Your task to perform on an android device: remove spam from my inbox in the gmail app Image 0: 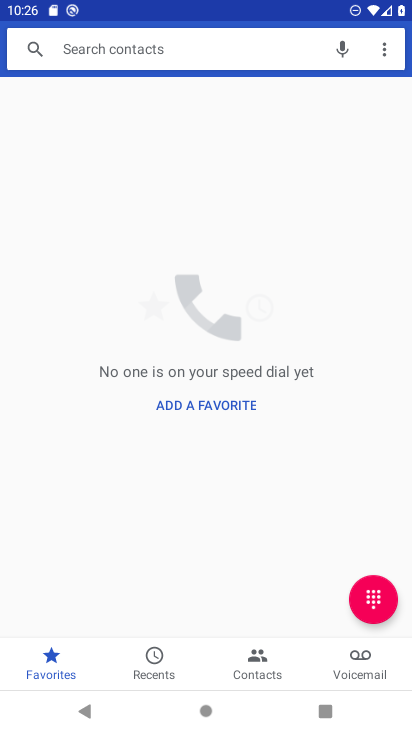
Step 0: press home button
Your task to perform on an android device: remove spam from my inbox in the gmail app Image 1: 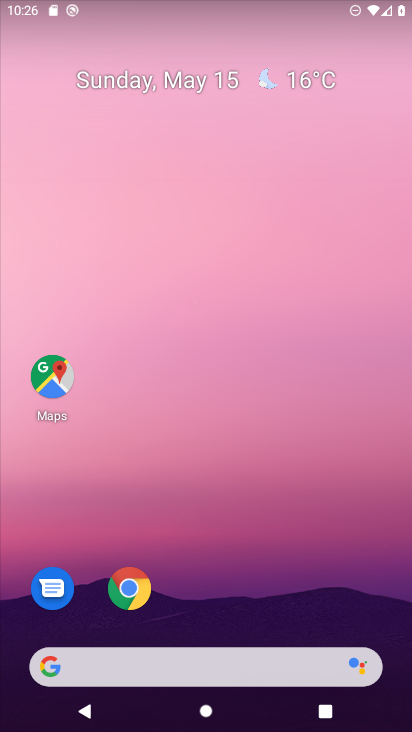
Step 1: drag from (173, 534) to (246, 12)
Your task to perform on an android device: remove spam from my inbox in the gmail app Image 2: 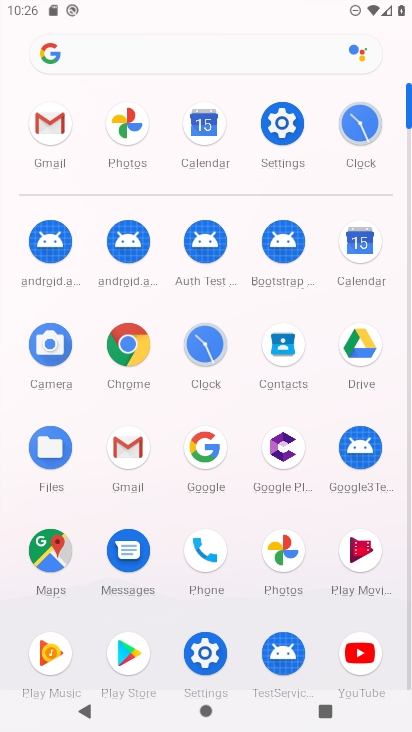
Step 2: click (126, 451)
Your task to perform on an android device: remove spam from my inbox in the gmail app Image 3: 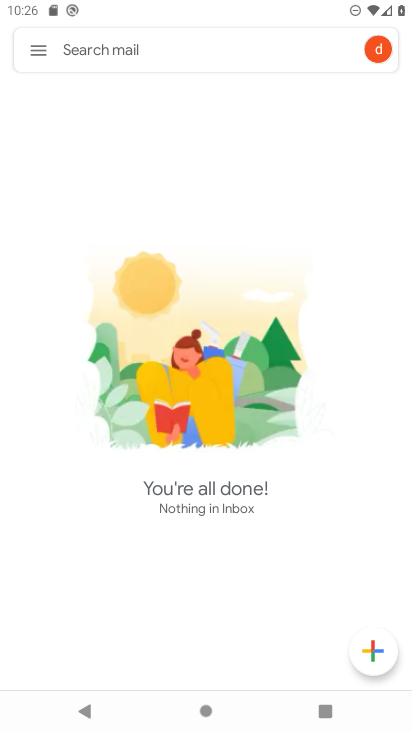
Step 3: click (44, 52)
Your task to perform on an android device: remove spam from my inbox in the gmail app Image 4: 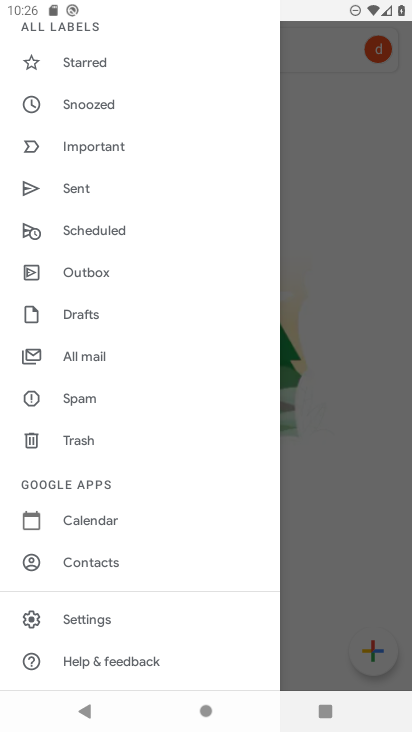
Step 4: click (65, 399)
Your task to perform on an android device: remove spam from my inbox in the gmail app Image 5: 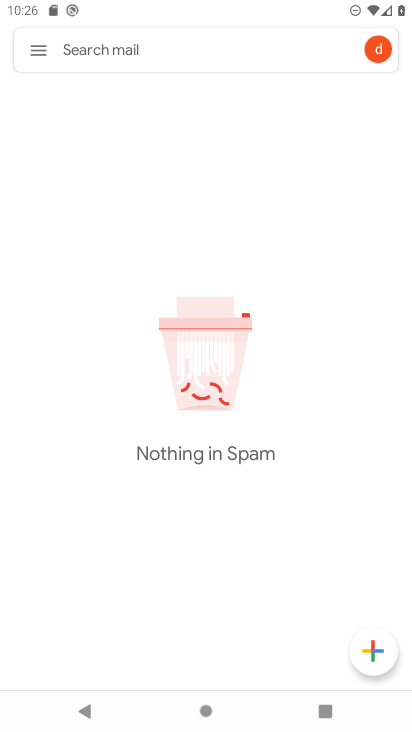
Step 5: task complete